Your task to perform on an android device: Open notification settings Image 0: 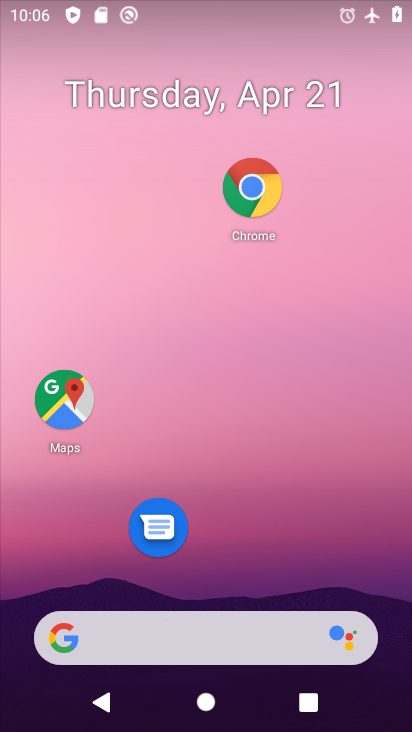
Step 0: drag from (285, 286) to (285, 181)
Your task to perform on an android device: Open notification settings Image 1: 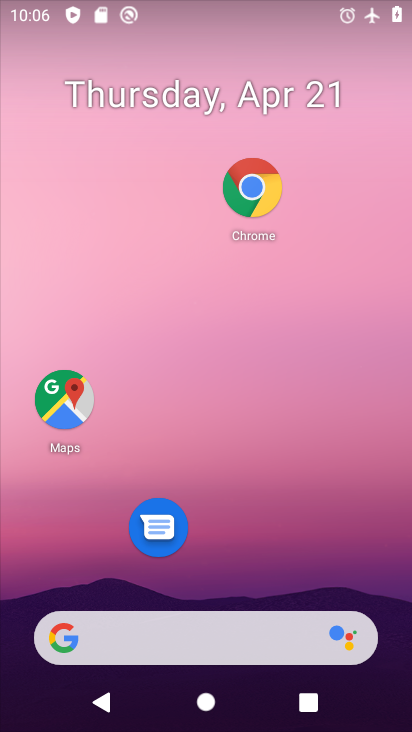
Step 1: drag from (262, 556) to (290, 197)
Your task to perform on an android device: Open notification settings Image 2: 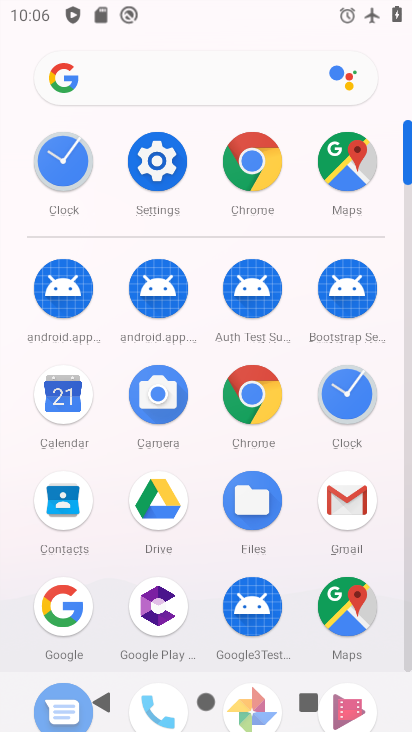
Step 2: click (162, 166)
Your task to perform on an android device: Open notification settings Image 3: 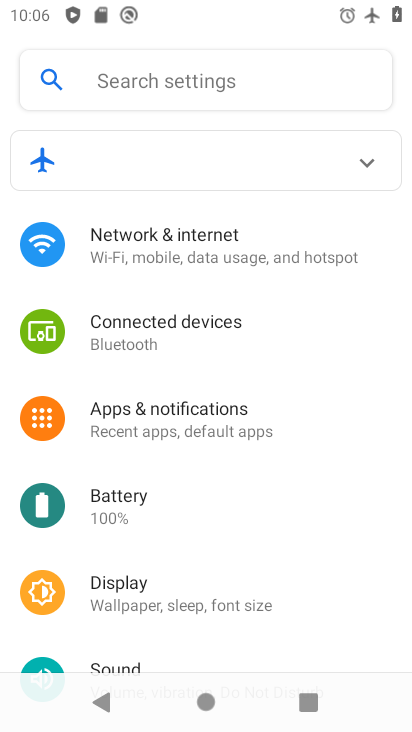
Step 3: click (241, 419)
Your task to perform on an android device: Open notification settings Image 4: 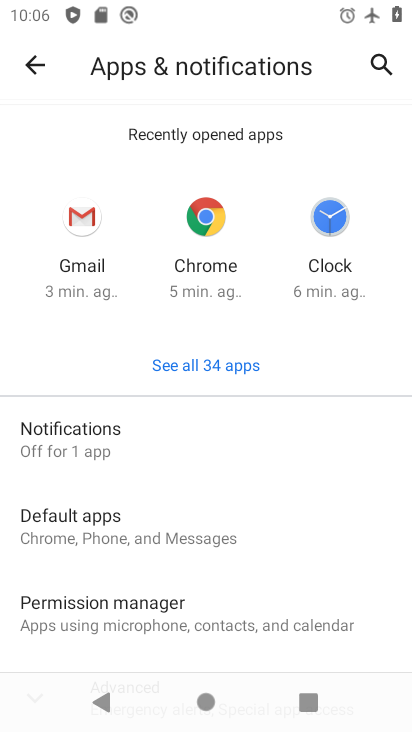
Step 4: click (212, 440)
Your task to perform on an android device: Open notification settings Image 5: 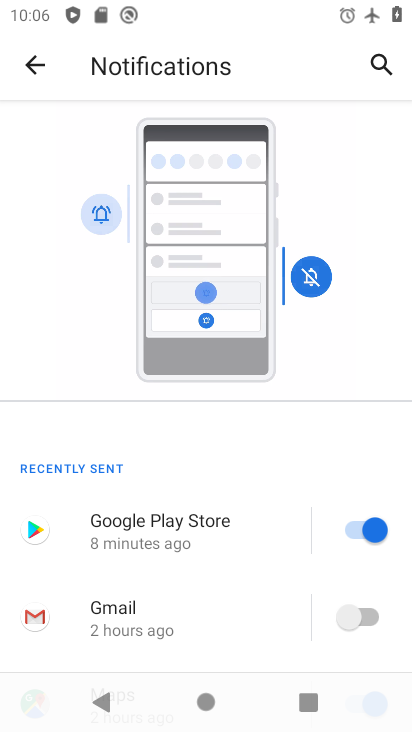
Step 5: click (368, 617)
Your task to perform on an android device: Open notification settings Image 6: 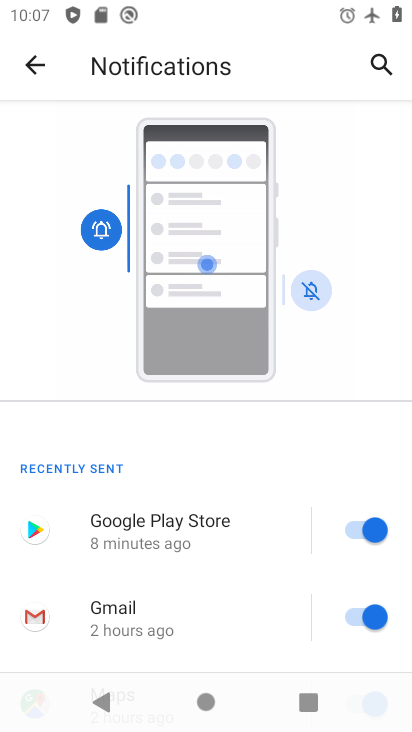
Step 6: task complete